Your task to perform on an android device: choose inbox layout in the gmail app Image 0: 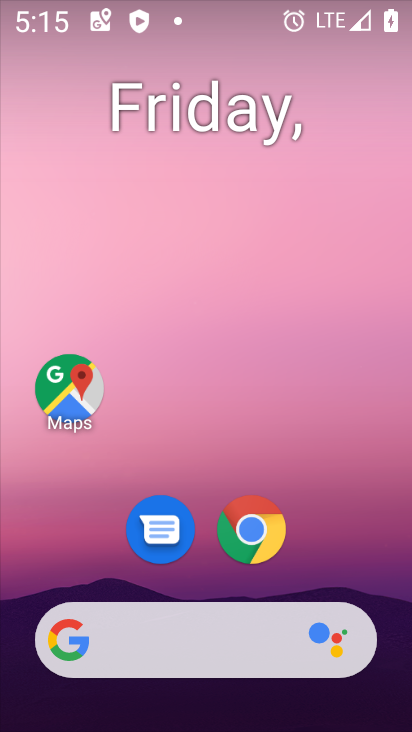
Step 0: drag from (343, 569) to (224, 117)
Your task to perform on an android device: choose inbox layout in the gmail app Image 1: 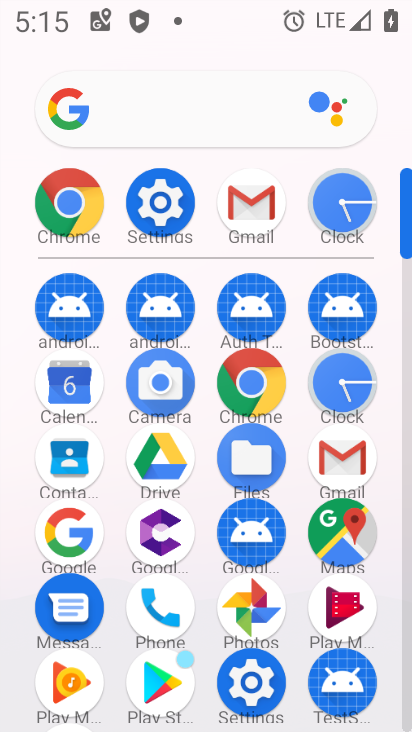
Step 1: click (321, 456)
Your task to perform on an android device: choose inbox layout in the gmail app Image 2: 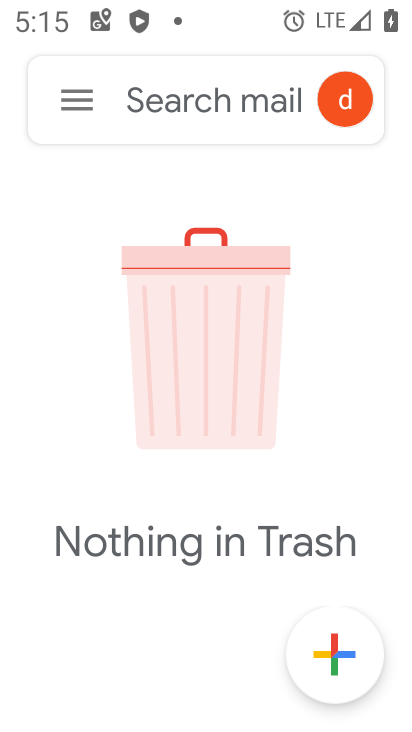
Step 2: click (72, 101)
Your task to perform on an android device: choose inbox layout in the gmail app Image 3: 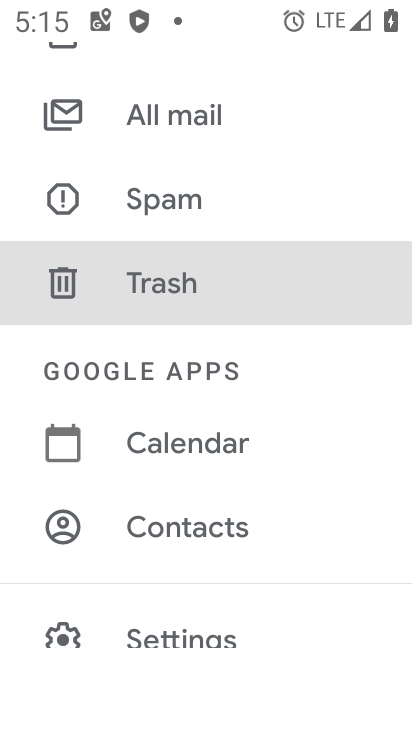
Step 3: click (188, 631)
Your task to perform on an android device: choose inbox layout in the gmail app Image 4: 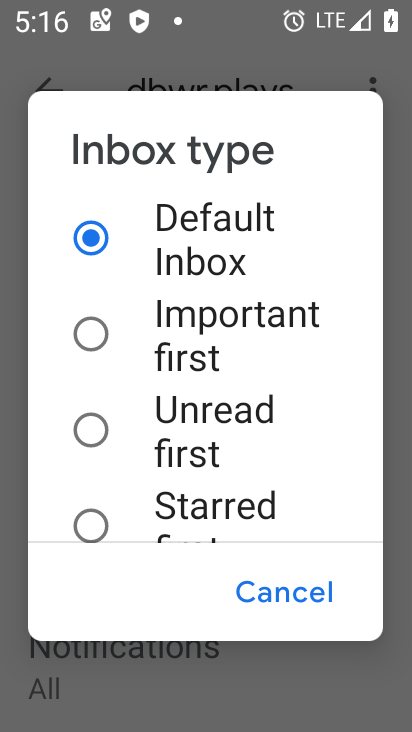
Step 4: click (178, 328)
Your task to perform on an android device: choose inbox layout in the gmail app Image 5: 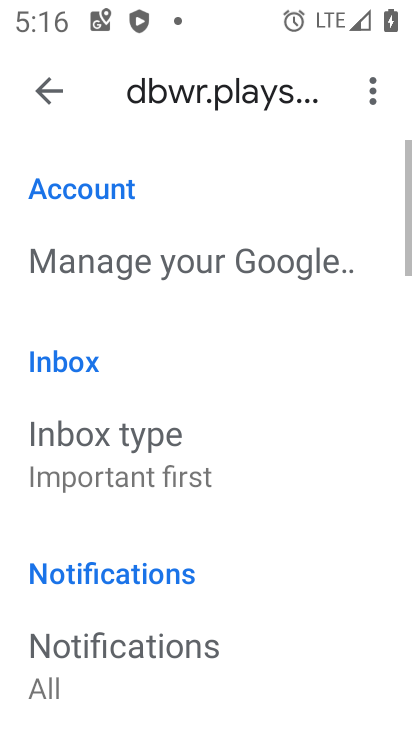
Step 5: task complete